Your task to perform on an android device: Go to Android settings Image 0: 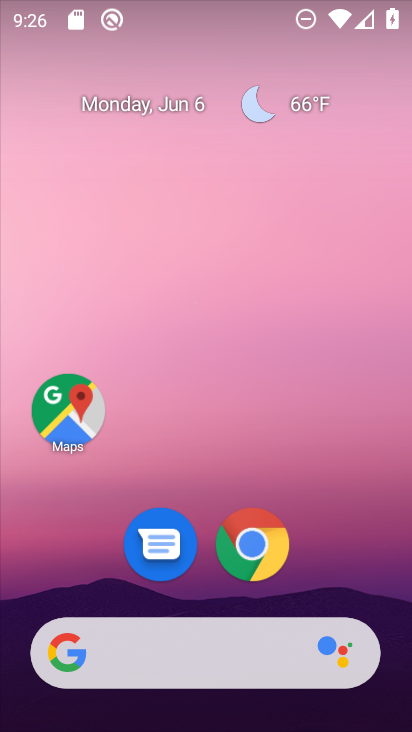
Step 0: drag from (202, 547) to (201, 255)
Your task to perform on an android device: Go to Android settings Image 1: 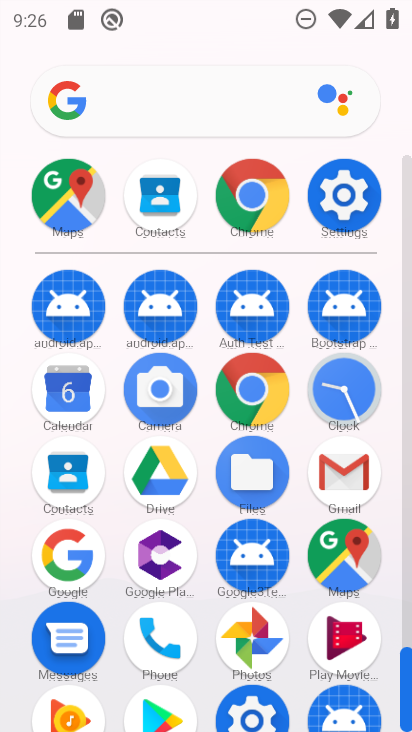
Step 1: click (346, 197)
Your task to perform on an android device: Go to Android settings Image 2: 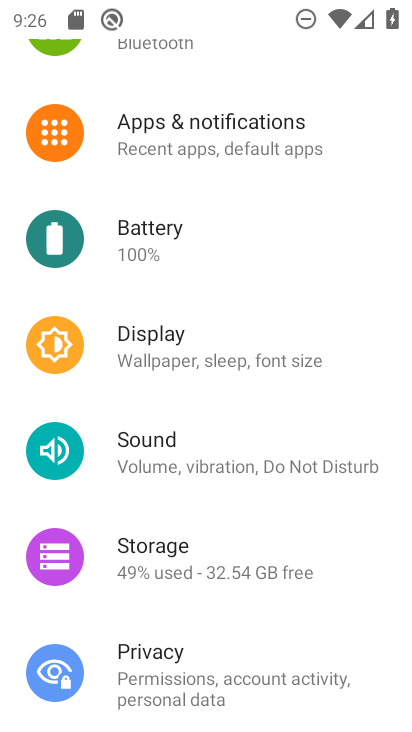
Step 2: task complete